Your task to perform on an android device: Show me popular games on the Play Store Image 0: 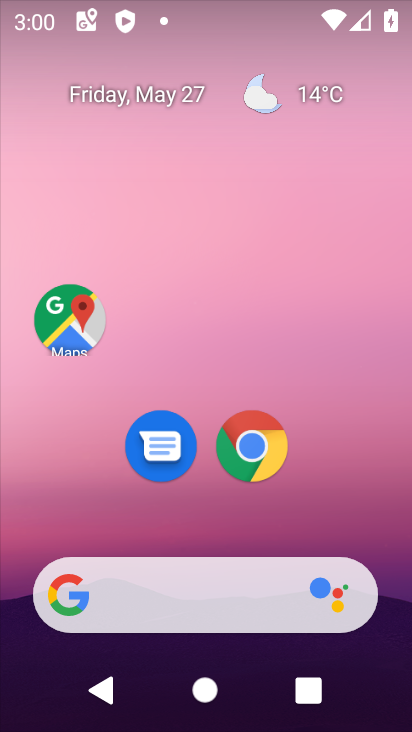
Step 0: press home button
Your task to perform on an android device: Show me popular games on the Play Store Image 1: 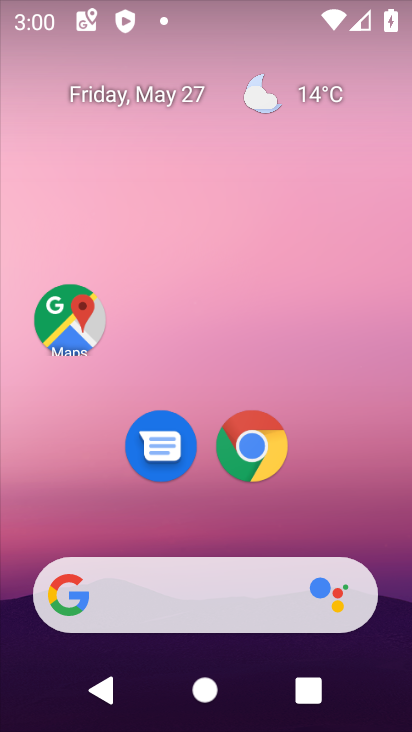
Step 1: drag from (226, 588) to (382, 140)
Your task to perform on an android device: Show me popular games on the Play Store Image 2: 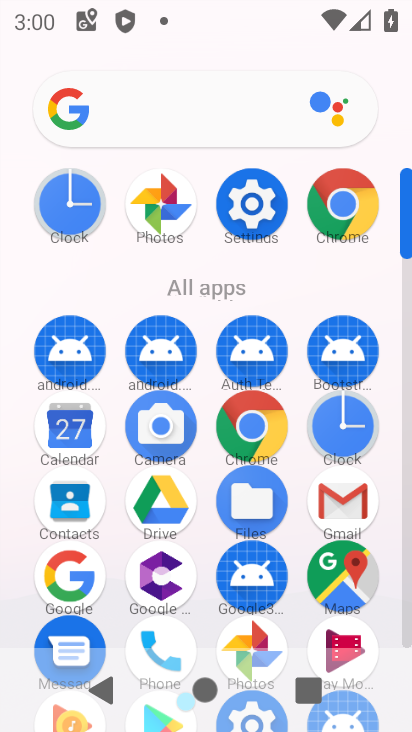
Step 2: drag from (184, 628) to (322, 97)
Your task to perform on an android device: Show me popular games on the Play Store Image 3: 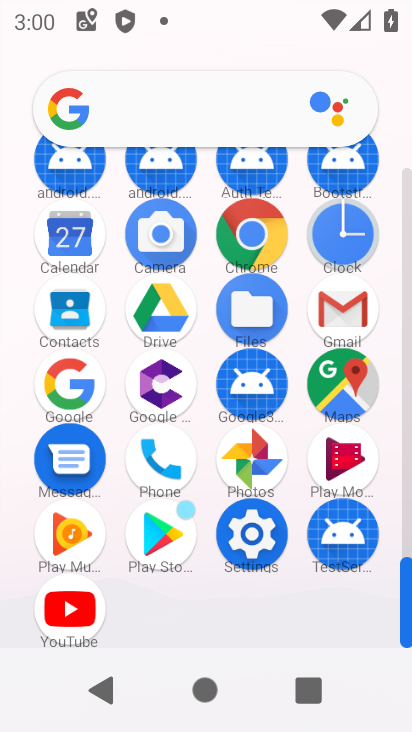
Step 3: click (167, 538)
Your task to perform on an android device: Show me popular games on the Play Store Image 4: 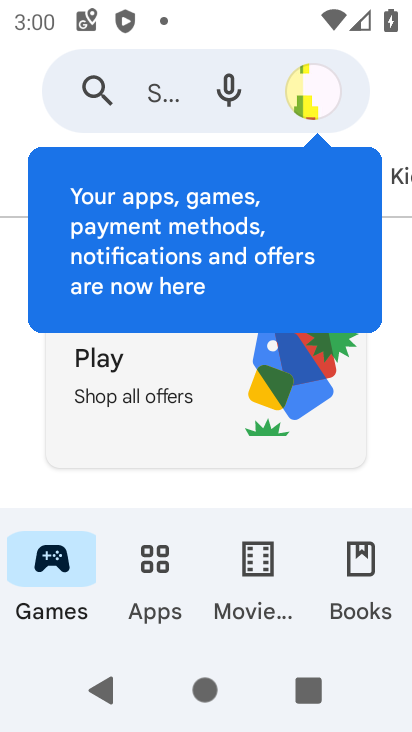
Step 4: drag from (175, 494) to (321, 114)
Your task to perform on an android device: Show me popular games on the Play Store Image 5: 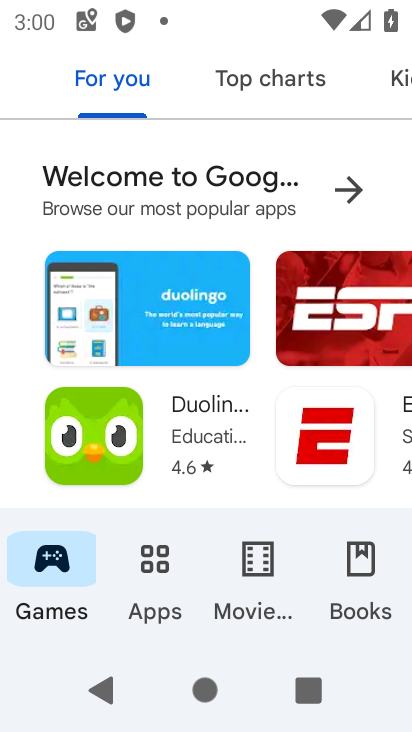
Step 5: drag from (188, 474) to (364, 56)
Your task to perform on an android device: Show me popular games on the Play Store Image 6: 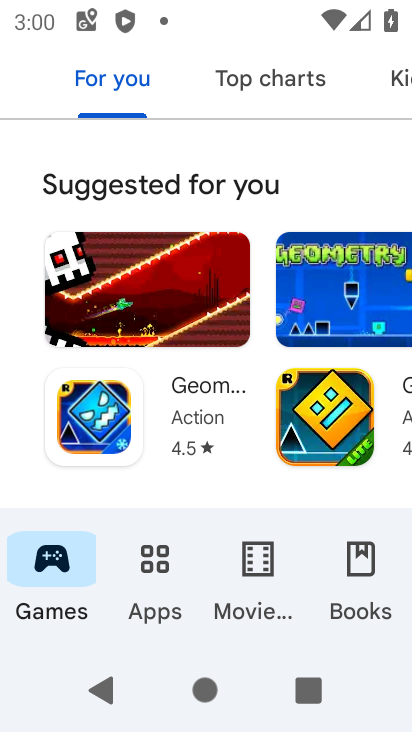
Step 6: drag from (235, 464) to (380, 79)
Your task to perform on an android device: Show me popular games on the Play Store Image 7: 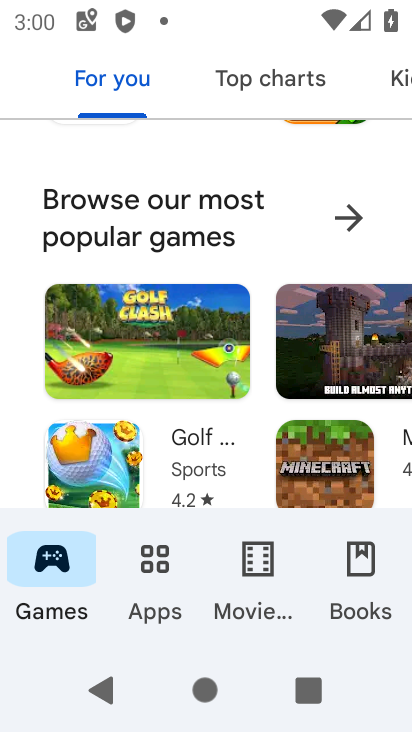
Step 7: click (235, 200)
Your task to perform on an android device: Show me popular games on the Play Store Image 8: 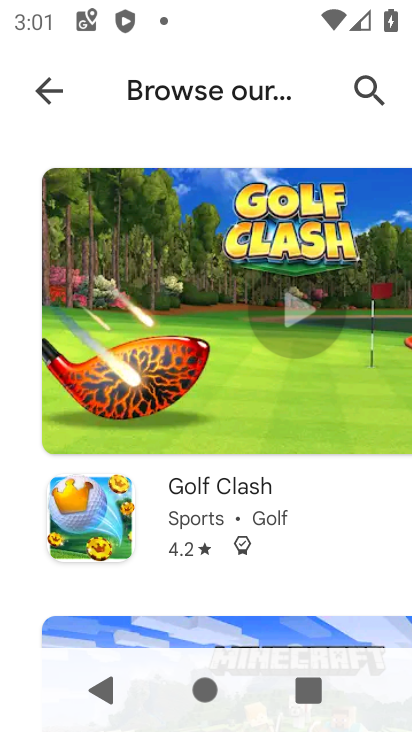
Step 8: task complete